Your task to perform on an android device: Open the web browser Image 0: 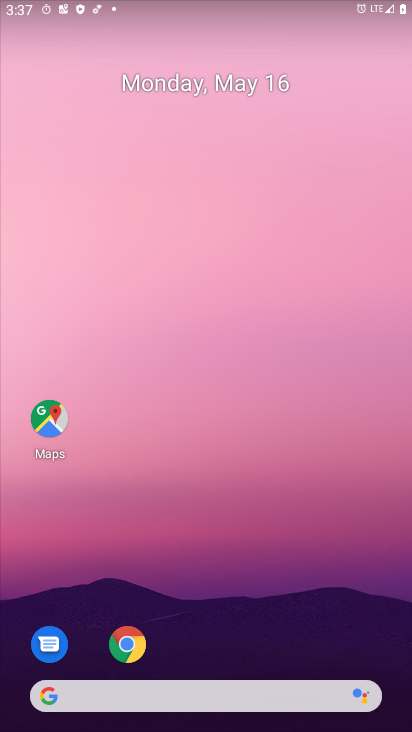
Step 0: drag from (259, 622) to (241, 157)
Your task to perform on an android device: Open the web browser Image 1: 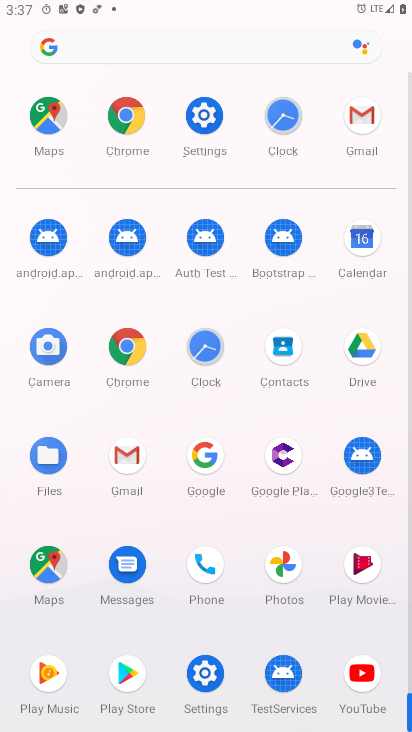
Step 1: click (116, 122)
Your task to perform on an android device: Open the web browser Image 2: 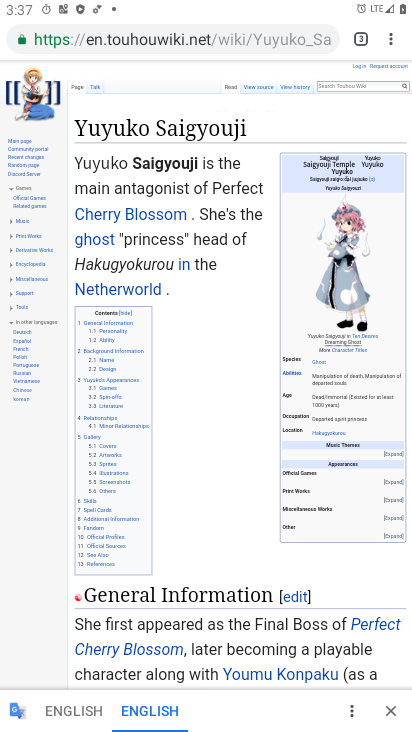
Step 2: task complete